Your task to perform on an android device: change the clock display to analog Image 0: 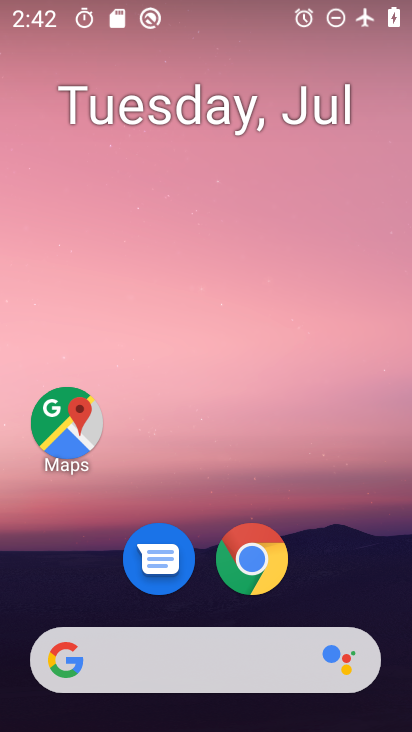
Step 0: drag from (363, 582) to (355, 156)
Your task to perform on an android device: change the clock display to analog Image 1: 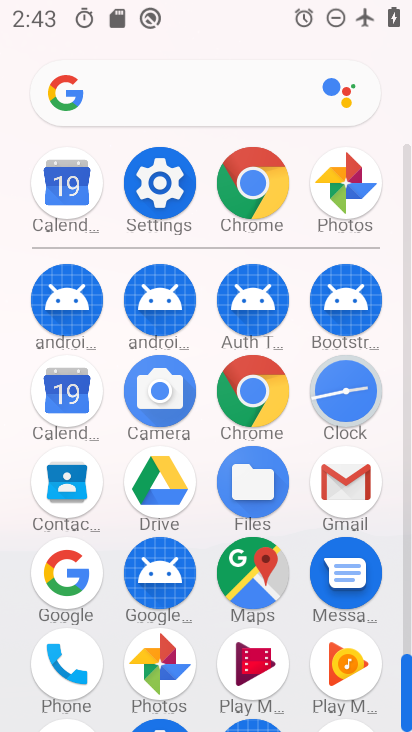
Step 1: click (353, 394)
Your task to perform on an android device: change the clock display to analog Image 2: 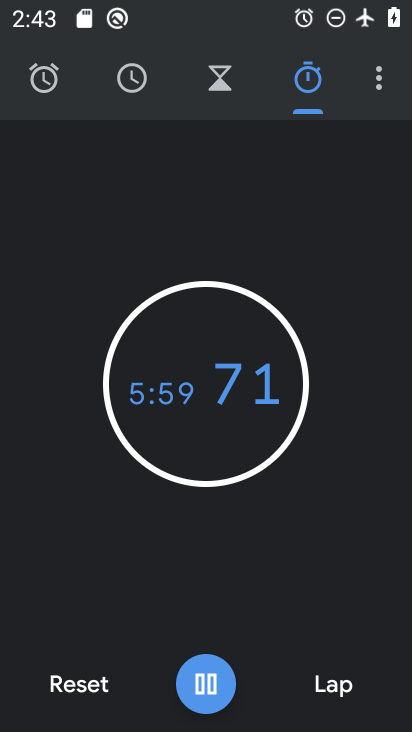
Step 2: click (378, 87)
Your task to perform on an android device: change the clock display to analog Image 3: 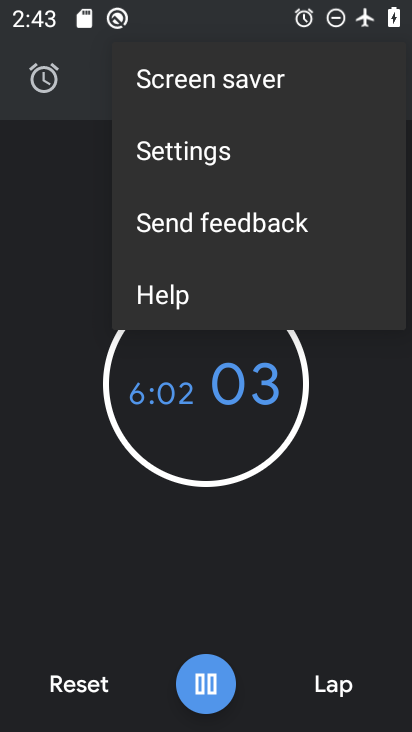
Step 3: click (307, 146)
Your task to perform on an android device: change the clock display to analog Image 4: 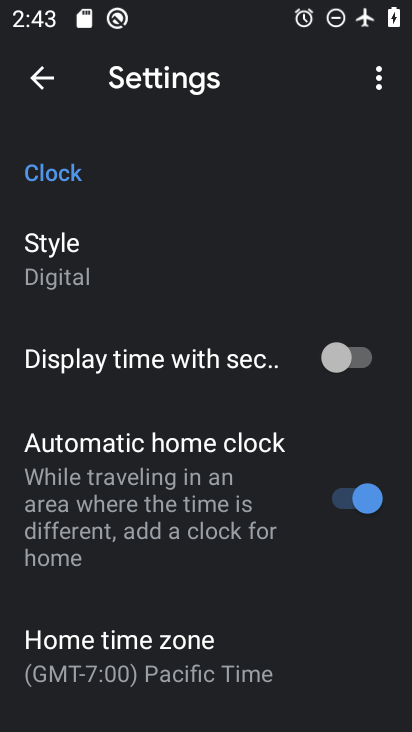
Step 4: click (100, 278)
Your task to perform on an android device: change the clock display to analog Image 5: 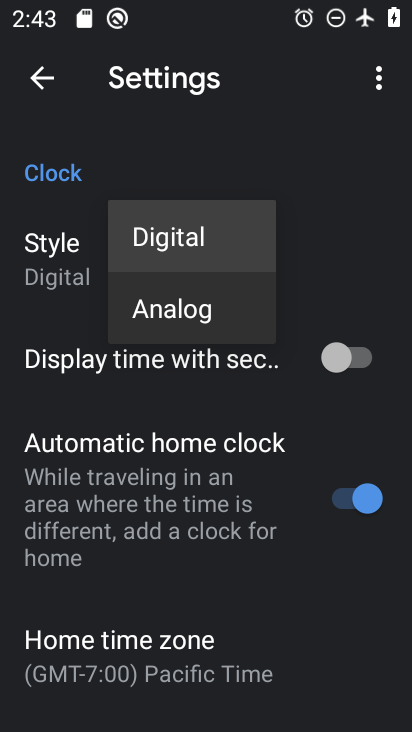
Step 5: click (118, 298)
Your task to perform on an android device: change the clock display to analog Image 6: 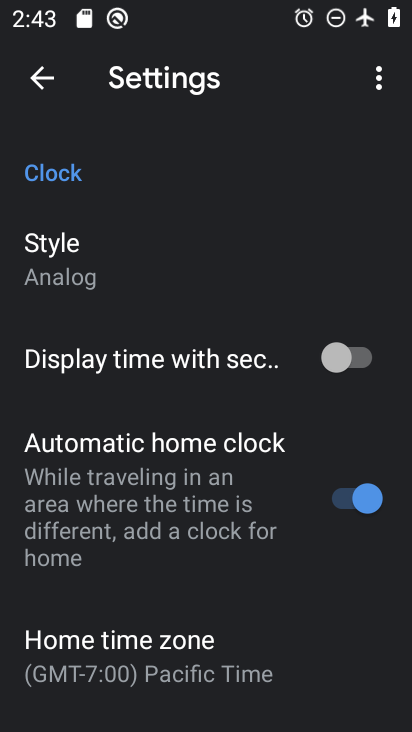
Step 6: task complete